Your task to perform on an android device: stop showing notifications on the lock screen Image 0: 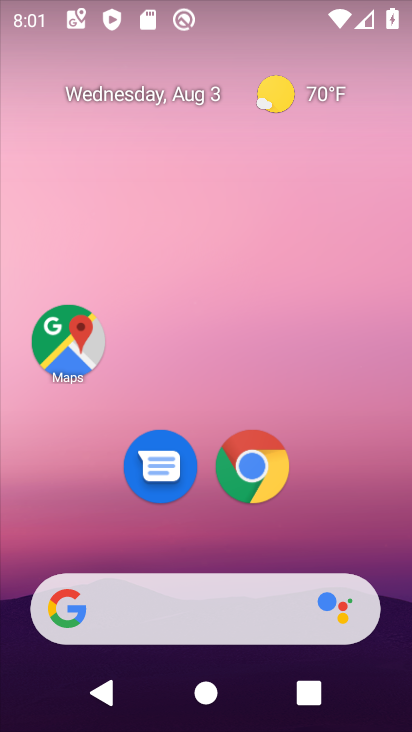
Step 0: drag from (364, 503) to (322, 56)
Your task to perform on an android device: stop showing notifications on the lock screen Image 1: 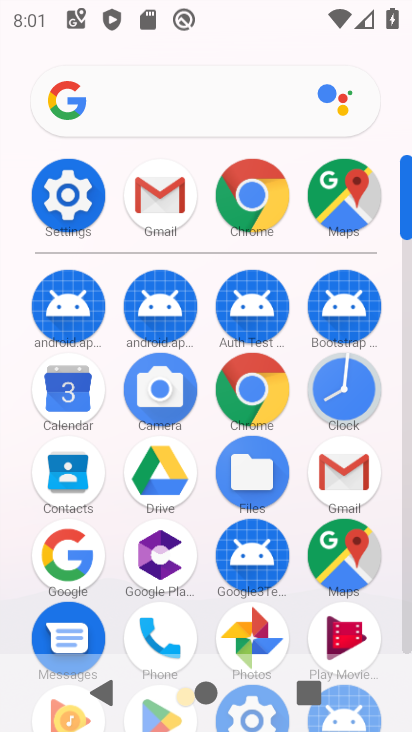
Step 1: click (82, 205)
Your task to perform on an android device: stop showing notifications on the lock screen Image 2: 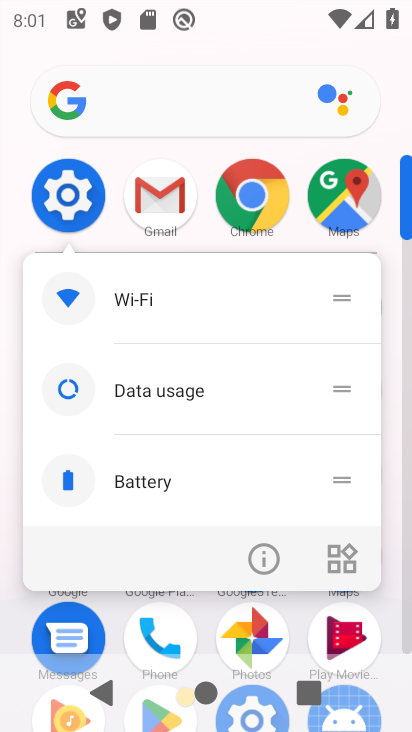
Step 2: click (69, 197)
Your task to perform on an android device: stop showing notifications on the lock screen Image 3: 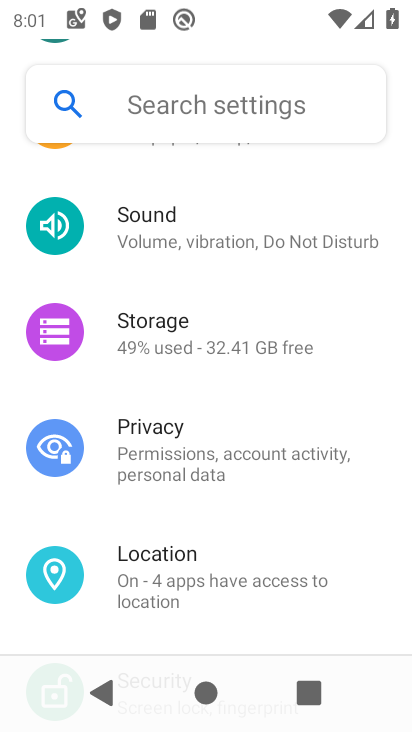
Step 3: drag from (256, 193) to (242, 501)
Your task to perform on an android device: stop showing notifications on the lock screen Image 4: 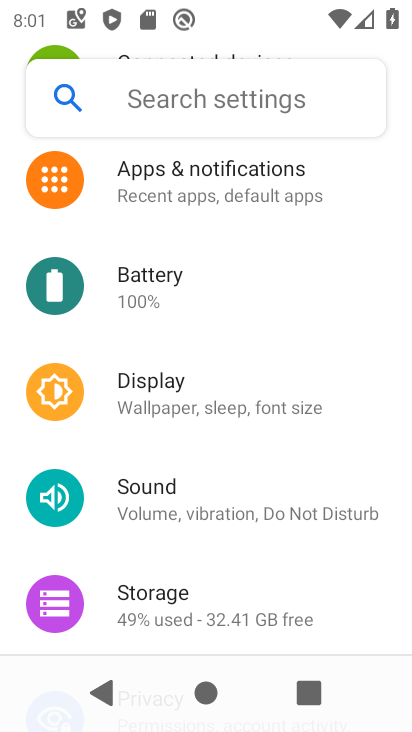
Step 4: click (276, 193)
Your task to perform on an android device: stop showing notifications on the lock screen Image 5: 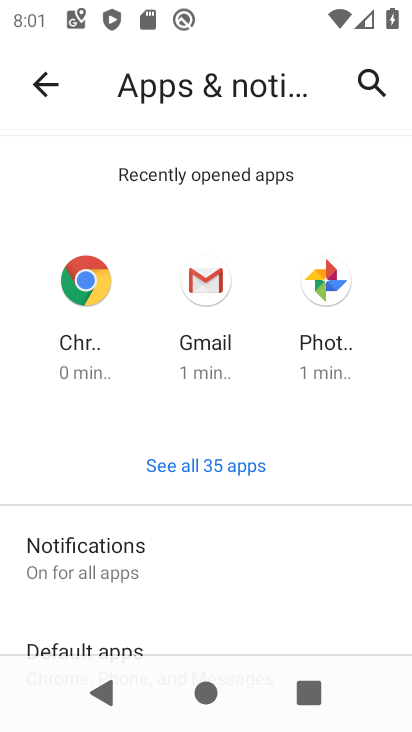
Step 5: click (76, 557)
Your task to perform on an android device: stop showing notifications on the lock screen Image 6: 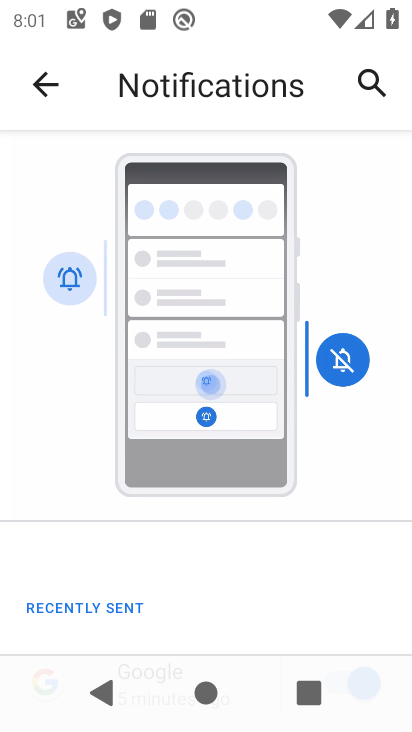
Step 6: drag from (256, 566) to (282, 150)
Your task to perform on an android device: stop showing notifications on the lock screen Image 7: 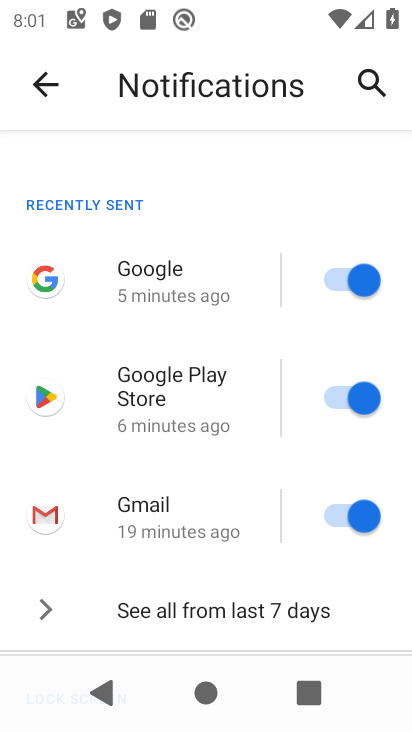
Step 7: drag from (229, 227) to (275, 78)
Your task to perform on an android device: stop showing notifications on the lock screen Image 8: 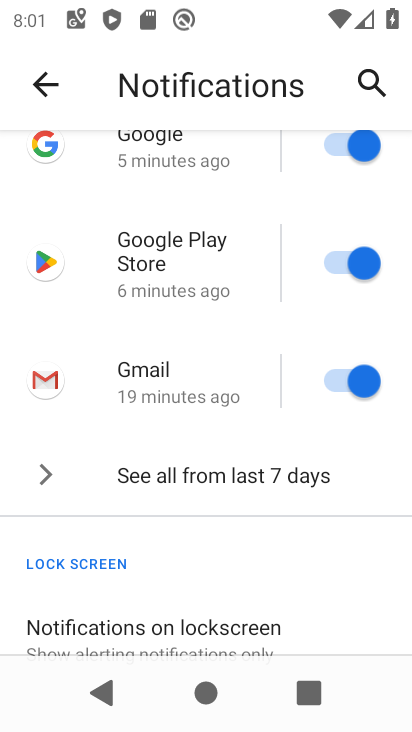
Step 8: click (230, 641)
Your task to perform on an android device: stop showing notifications on the lock screen Image 9: 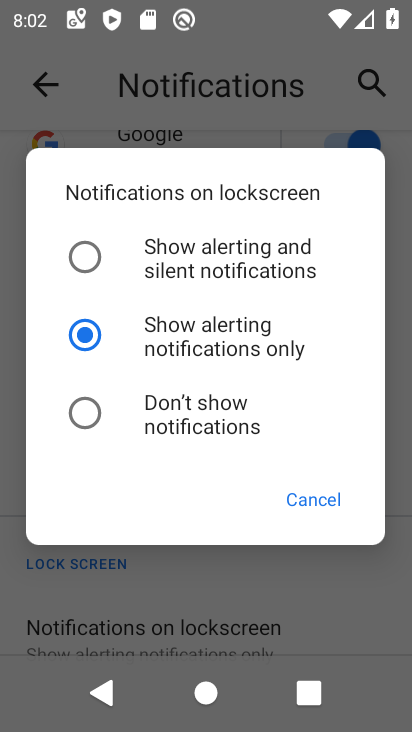
Step 9: click (210, 413)
Your task to perform on an android device: stop showing notifications on the lock screen Image 10: 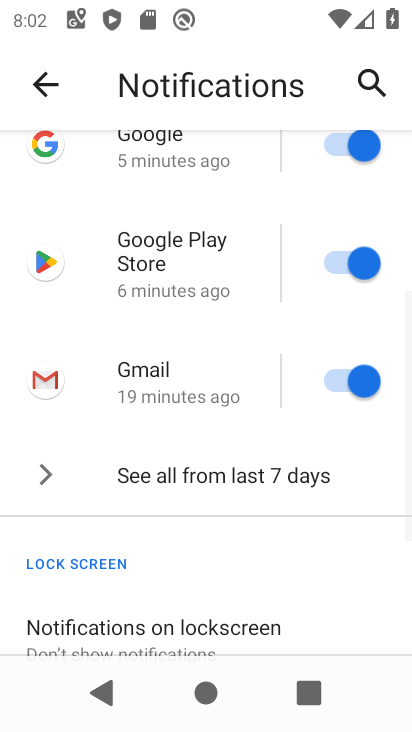
Step 10: task complete